Your task to perform on an android device: remove spam from my inbox in the gmail app Image 0: 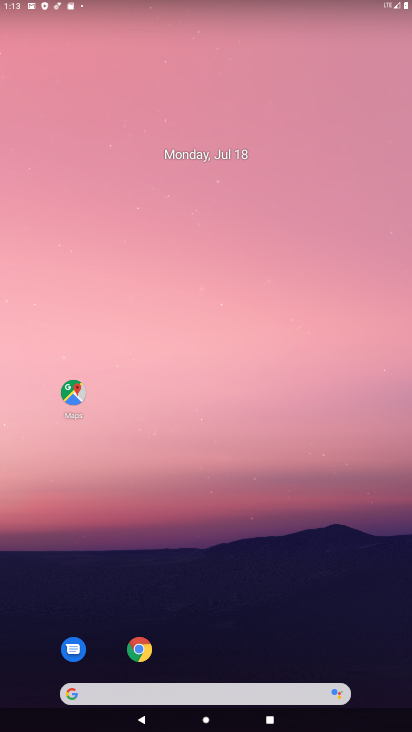
Step 0: drag from (300, 695) to (261, 99)
Your task to perform on an android device: remove spam from my inbox in the gmail app Image 1: 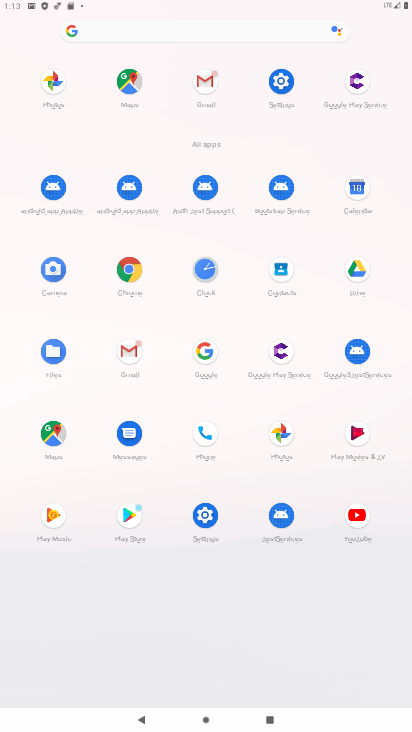
Step 1: click (209, 81)
Your task to perform on an android device: remove spam from my inbox in the gmail app Image 2: 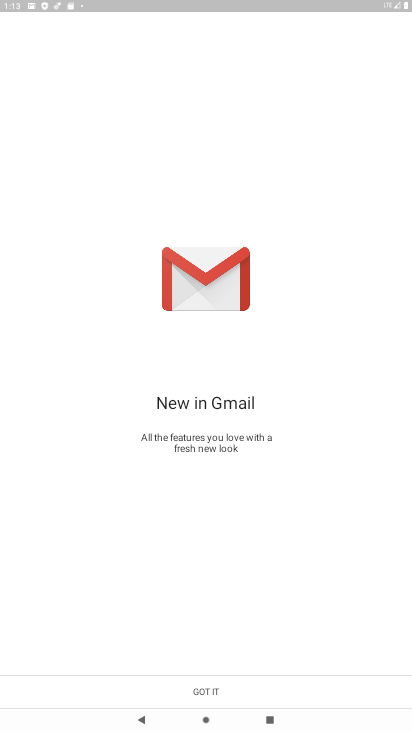
Step 2: click (200, 691)
Your task to perform on an android device: remove spam from my inbox in the gmail app Image 3: 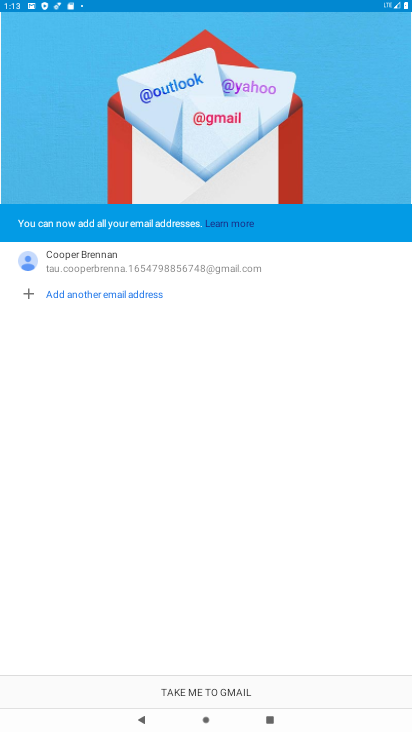
Step 3: click (200, 691)
Your task to perform on an android device: remove spam from my inbox in the gmail app Image 4: 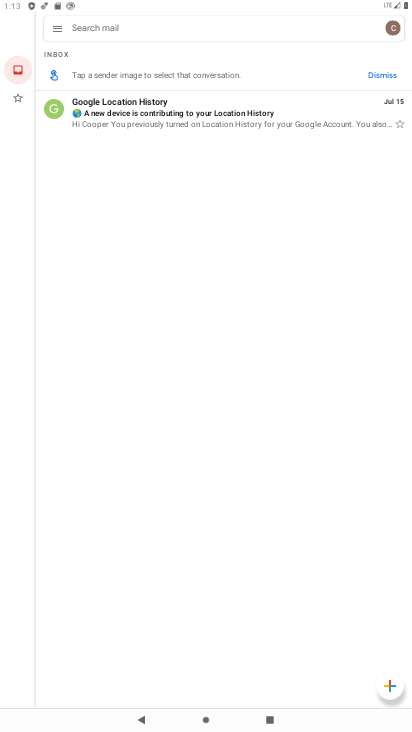
Step 4: click (61, 29)
Your task to perform on an android device: remove spam from my inbox in the gmail app Image 5: 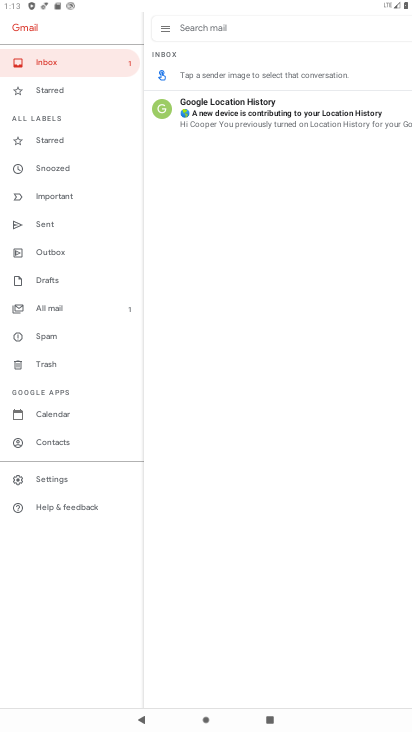
Step 5: click (68, 328)
Your task to perform on an android device: remove spam from my inbox in the gmail app Image 6: 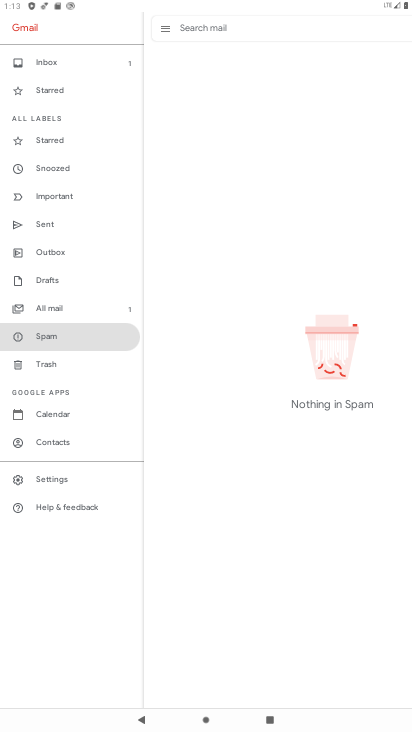
Step 6: task complete